Your task to perform on an android device: change notifications settings Image 0: 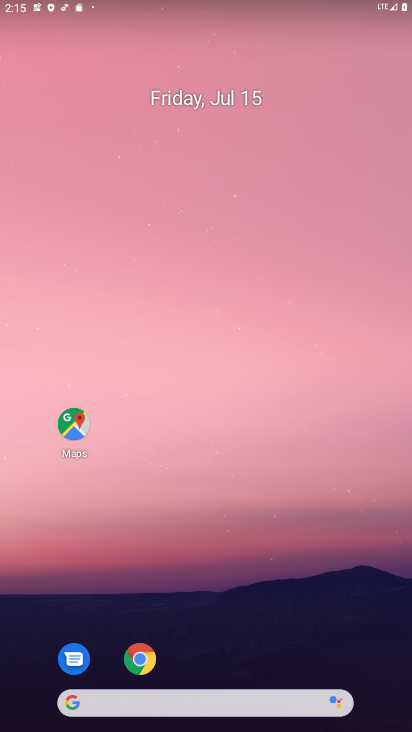
Step 0: drag from (221, 664) to (176, 299)
Your task to perform on an android device: change notifications settings Image 1: 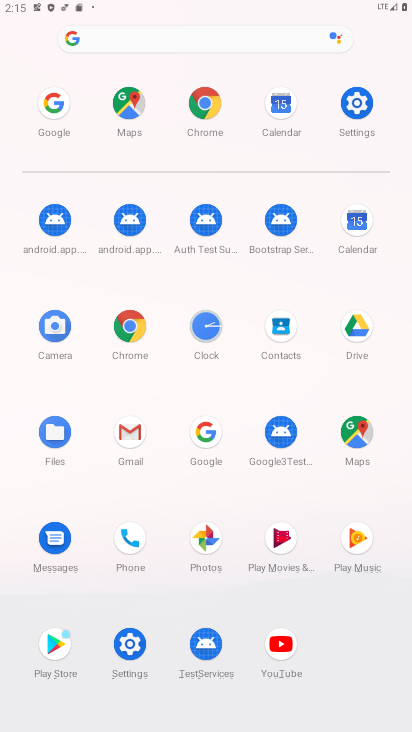
Step 1: click (356, 105)
Your task to perform on an android device: change notifications settings Image 2: 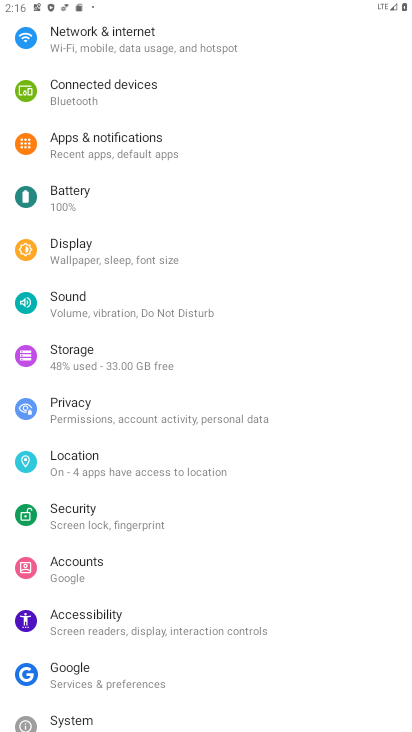
Step 2: click (135, 154)
Your task to perform on an android device: change notifications settings Image 3: 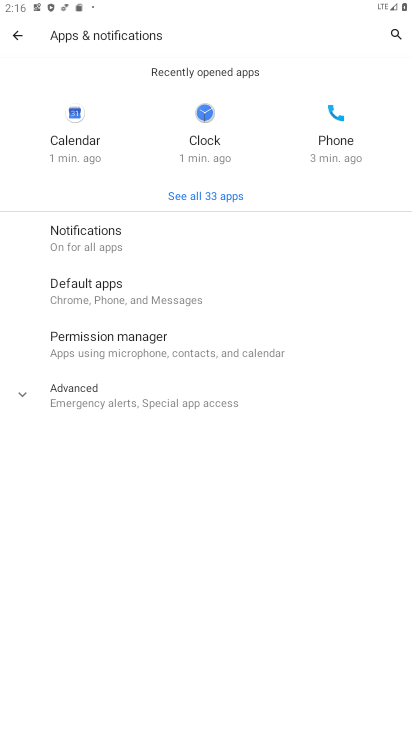
Step 3: click (158, 249)
Your task to perform on an android device: change notifications settings Image 4: 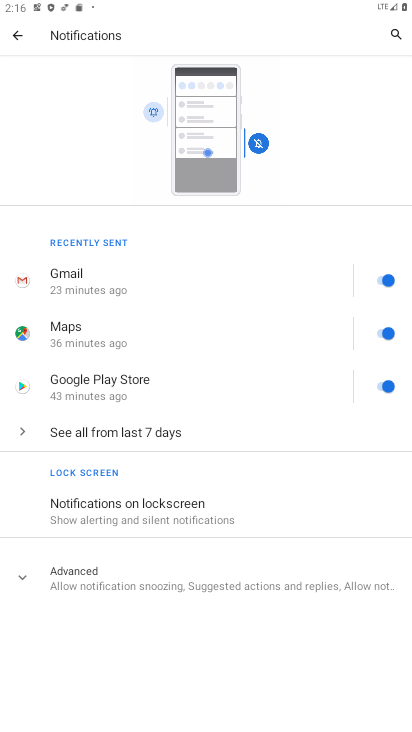
Step 4: click (124, 520)
Your task to perform on an android device: change notifications settings Image 5: 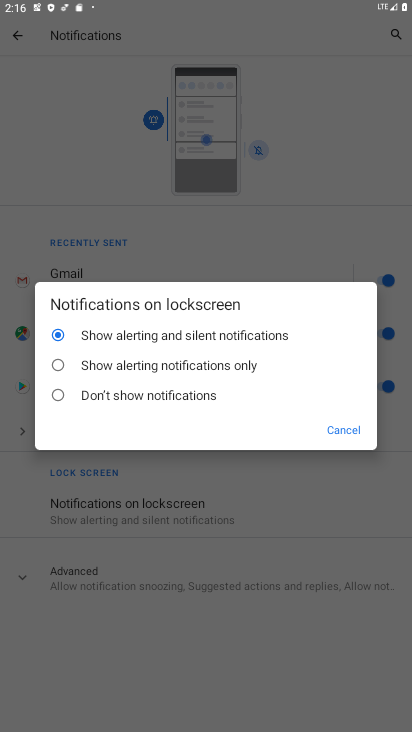
Step 5: click (345, 444)
Your task to perform on an android device: change notifications settings Image 6: 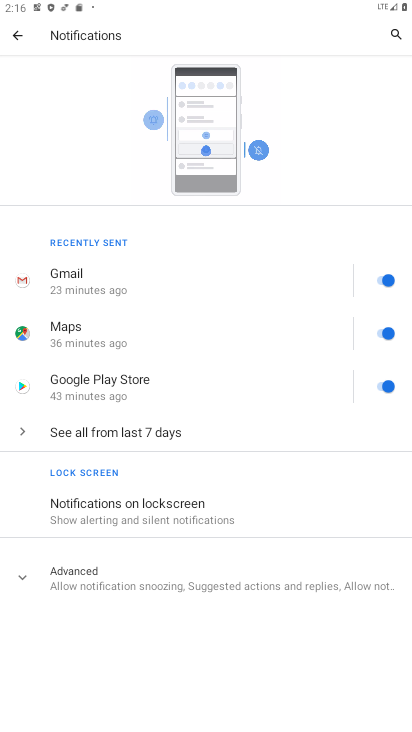
Step 6: click (156, 421)
Your task to perform on an android device: change notifications settings Image 7: 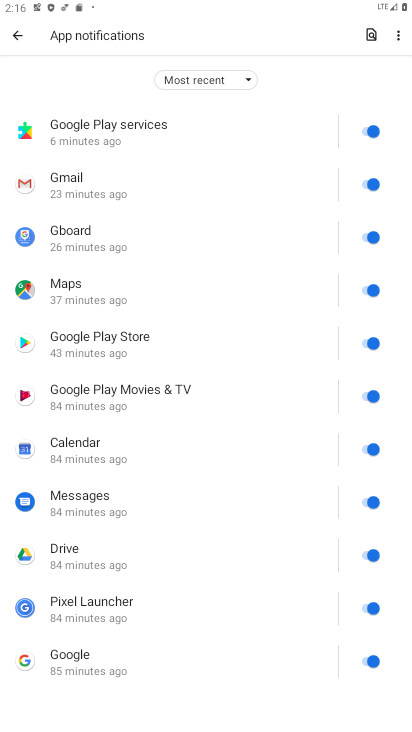
Step 7: click (359, 133)
Your task to perform on an android device: change notifications settings Image 8: 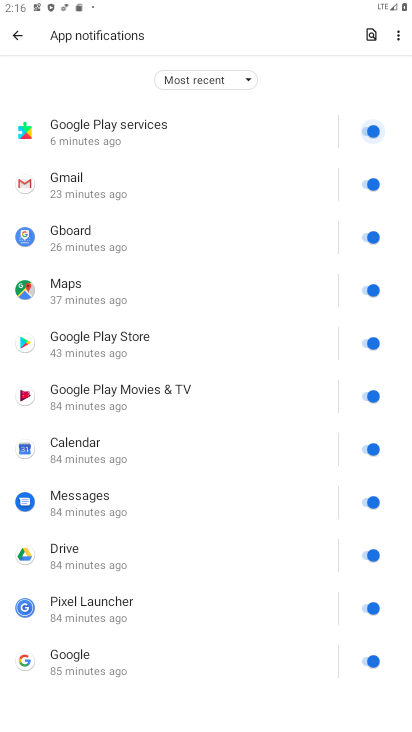
Step 8: click (366, 168)
Your task to perform on an android device: change notifications settings Image 9: 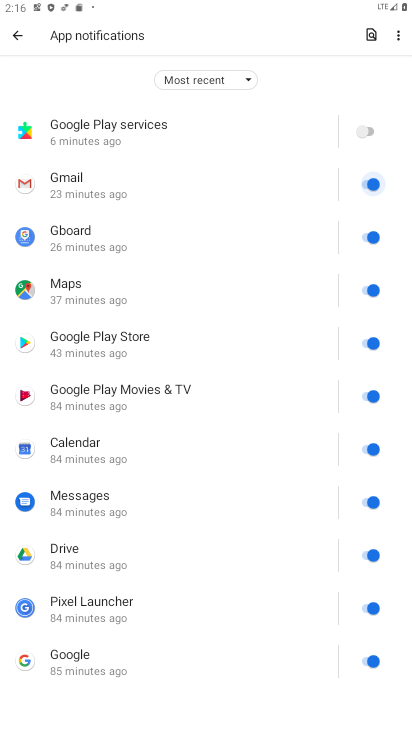
Step 9: click (366, 220)
Your task to perform on an android device: change notifications settings Image 10: 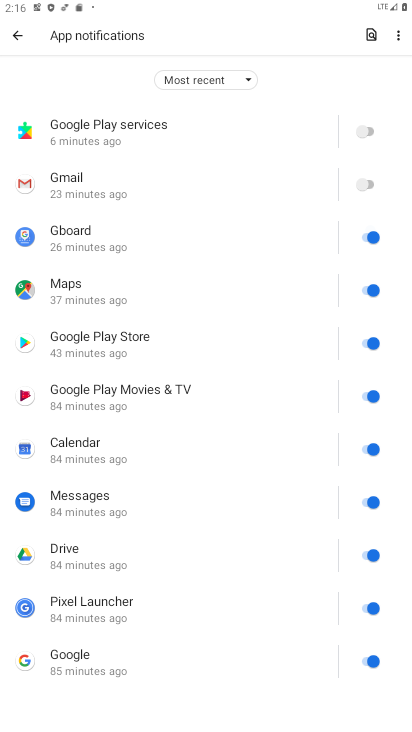
Step 10: click (366, 246)
Your task to perform on an android device: change notifications settings Image 11: 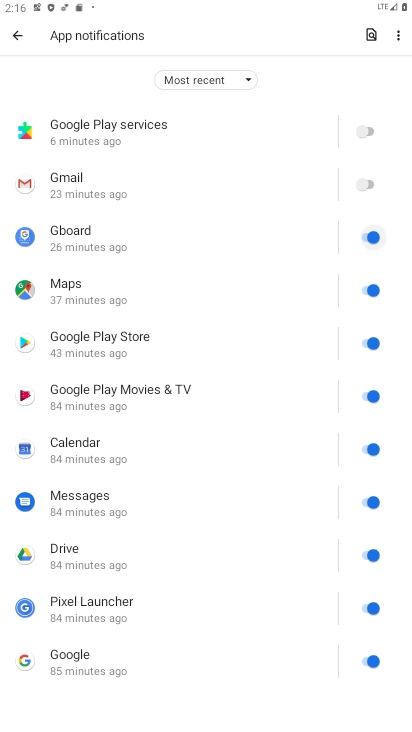
Step 11: click (364, 274)
Your task to perform on an android device: change notifications settings Image 12: 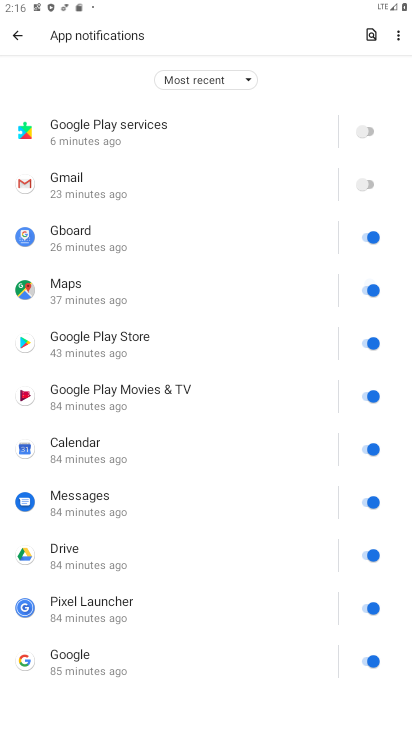
Step 12: click (364, 293)
Your task to perform on an android device: change notifications settings Image 13: 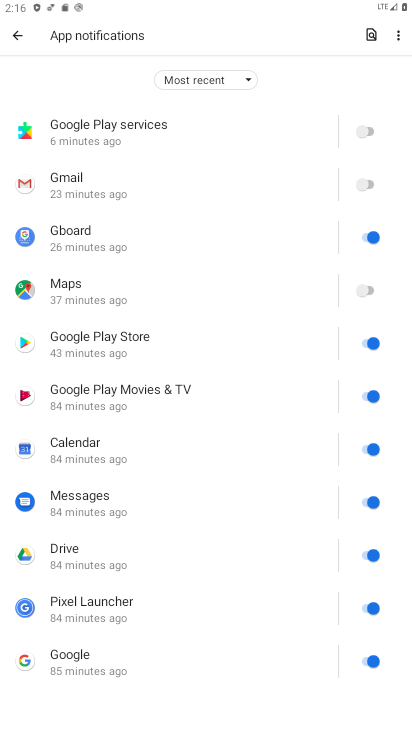
Step 13: click (364, 352)
Your task to perform on an android device: change notifications settings Image 14: 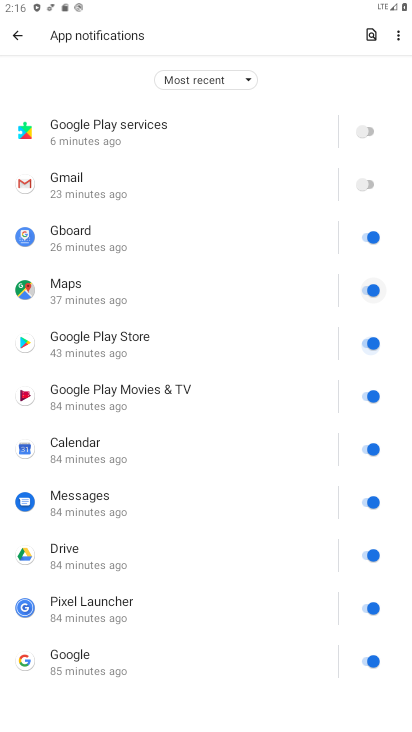
Step 14: click (368, 393)
Your task to perform on an android device: change notifications settings Image 15: 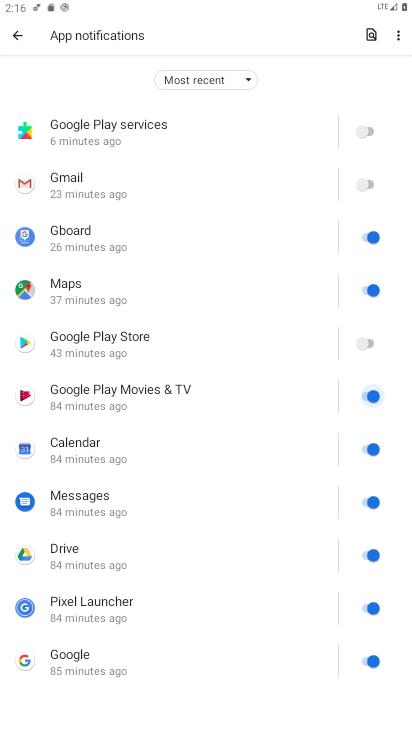
Step 15: click (362, 444)
Your task to perform on an android device: change notifications settings Image 16: 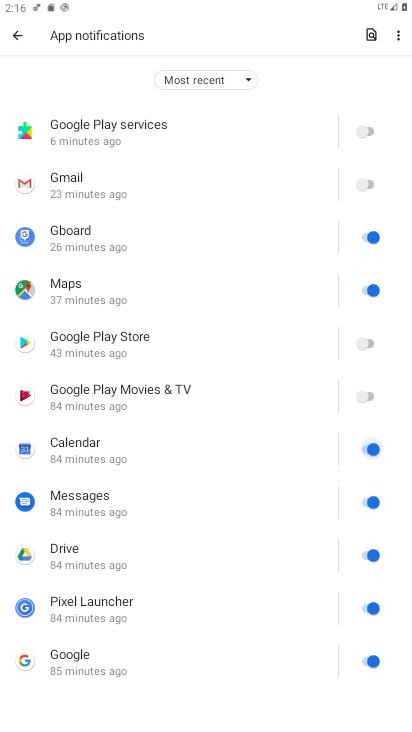
Step 16: click (362, 519)
Your task to perform on an android device: change notifications settings Image 17: 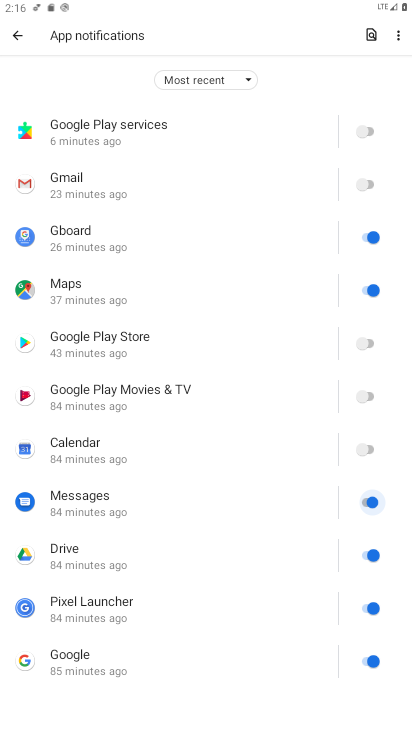
Step 17: click (366, 569)
Your task to perform on an android device: change notifications settings Image 18: 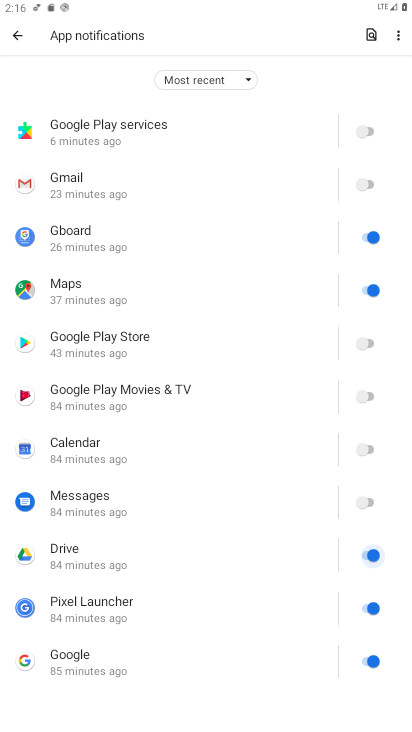
Step 18: click (364, 588)
Your task to perform on an android device: change notifications settings Image 19: 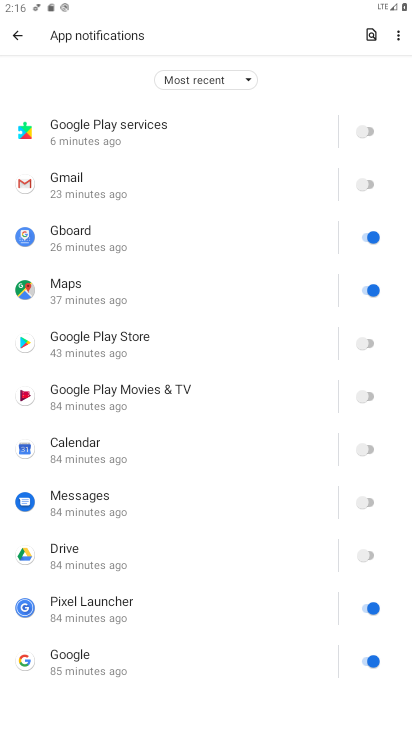
Step 19: click (369, 644)
Your task to perform on an android device: change notifications settings Image 20: 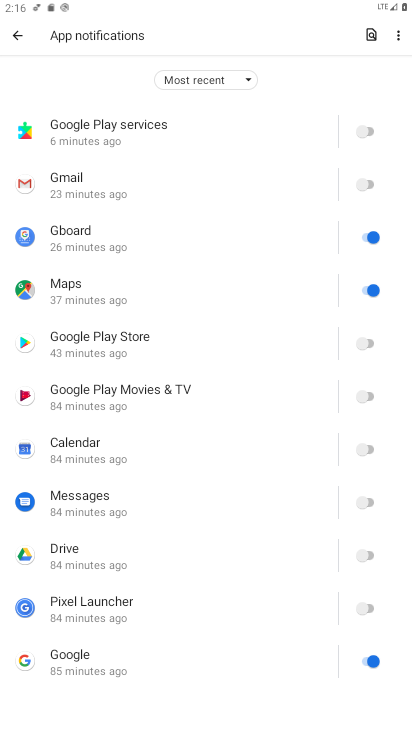
Step 20: click (370, 286)
Your task to perform on an android device: change notifications settings Image 21: 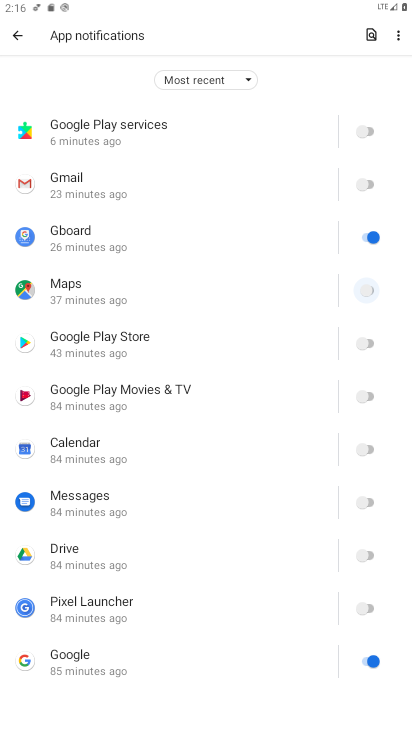
Step 21: click (371, 240)
Your task to perform on an android device: change notifications settings Image 22: 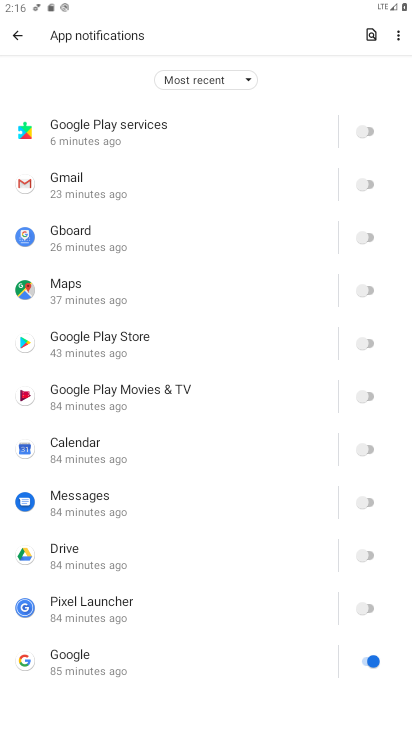
Step 22: click (371, 667)
Your task to perform on an android device: change notifications settings Image 23: 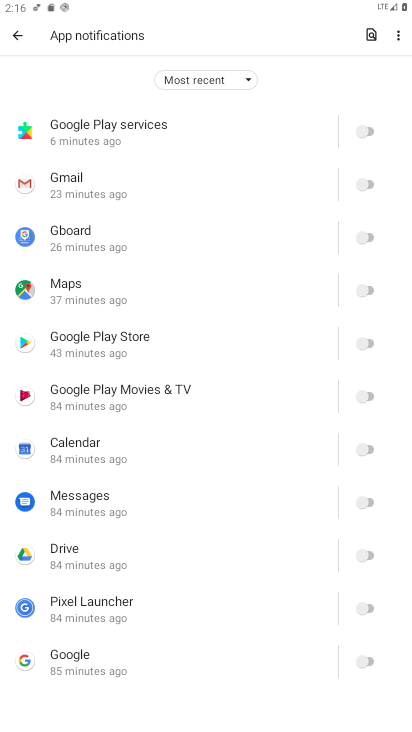
Step 23: task complete